Your task to perform on an android device: Search for vegetarian restaurants on Maps Image 0: 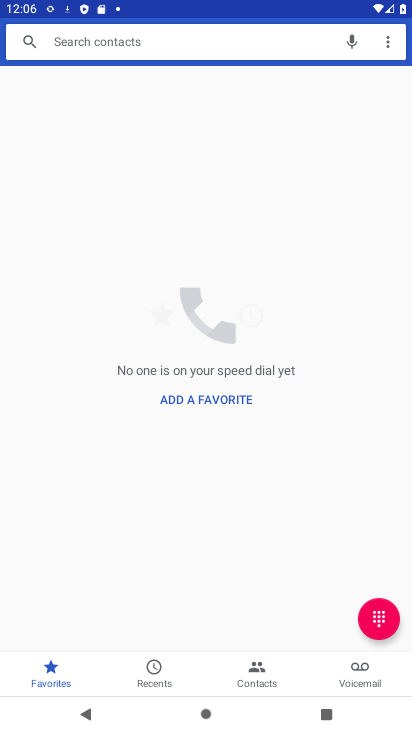
Step 0: press home button
Your task to perform on an android device: Search for vegetarian restaurants on Maps Image 1: 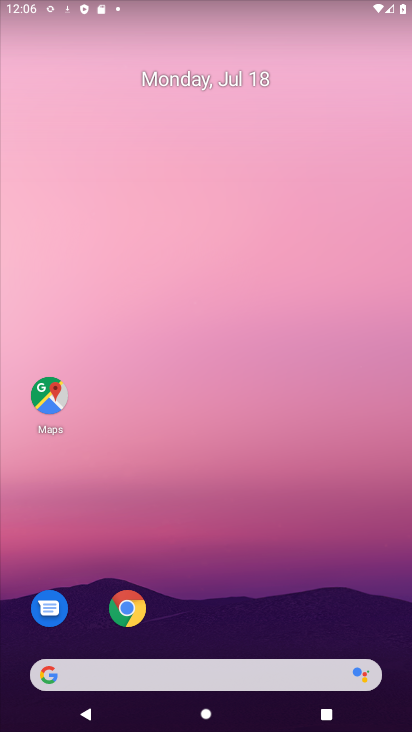
Step 1: click (59, 404)
Your task to perform on an android device: Search for vegetarian restaurants on Maps Image 2: 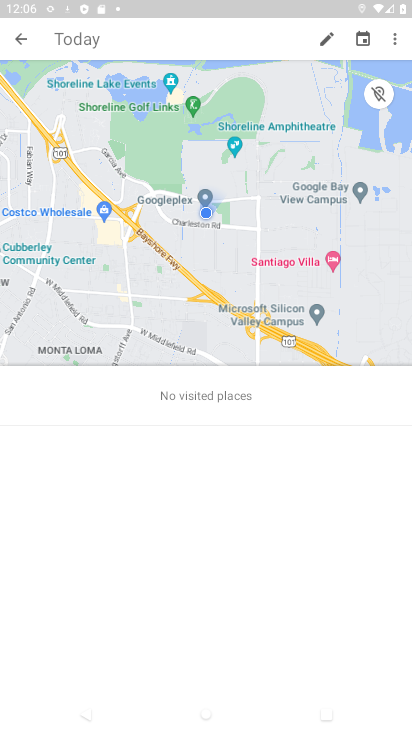
Step 2: click (22, 33)
Your task to perform on an android device: Search for vegetarian restaurants on Maps Image 3: 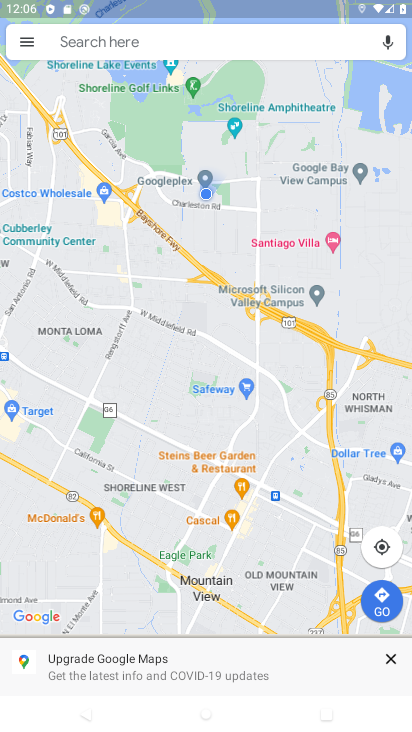
Step 3: click (241, 45)
Your task to perform on an android device: Search for vegetarian restaurants on Maps Image 4: 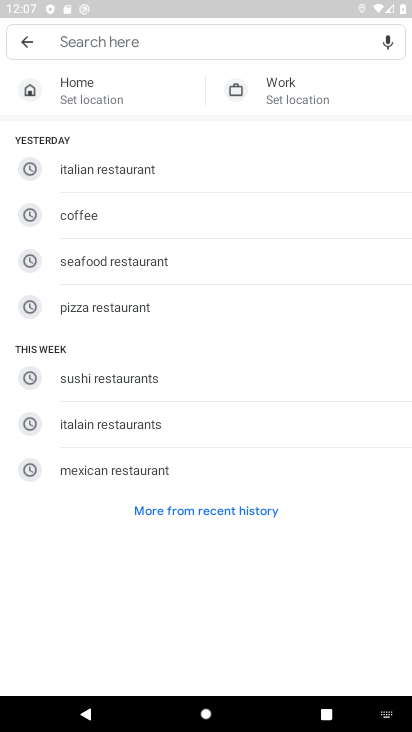
Step 4: type "vegetarian restaurants"
Your task to perform on an android device: Search for vegetarian restaurants on Maps Image 5: 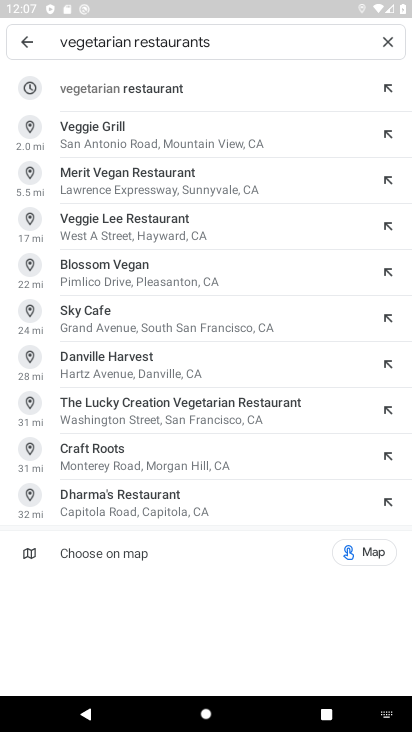
Step 5: click (119, 89)
Your task to perform on an android device: Search for vegetarian restaurants on Maps Image 6: 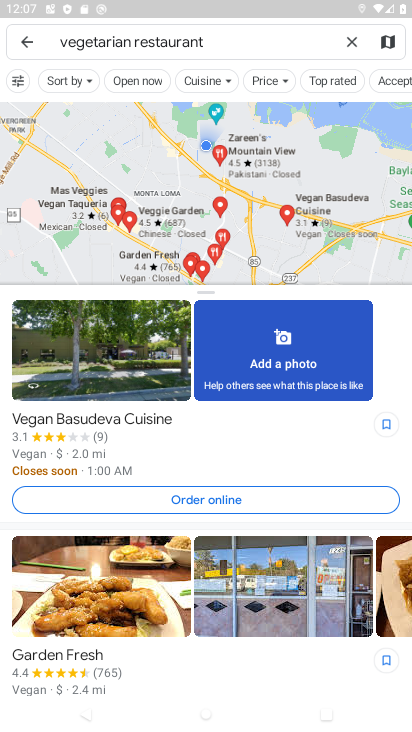
Step 6: task complete